Your task to perform on an android device: Open Reddit.com Image 0: 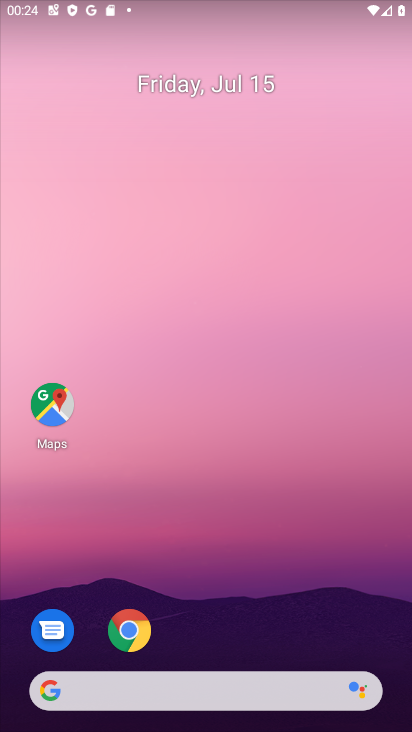
Step 0: click (211, 709)
Your task to perform on an android device: Open Reddit.com Image 1: 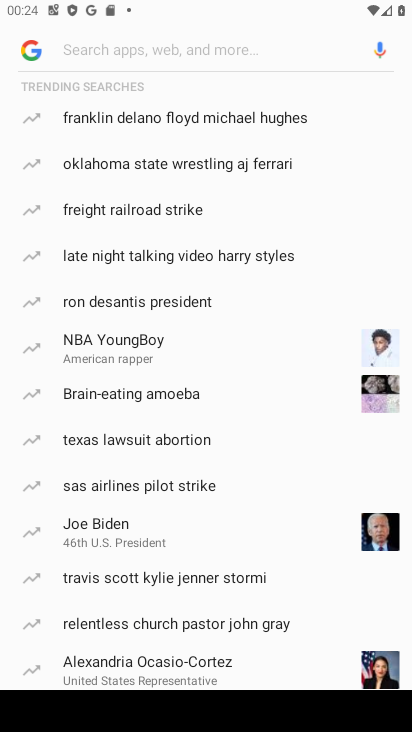
Step 1: type "reddiit.com"
Your task to perform on an android device: Open Reddit.com Image 2: 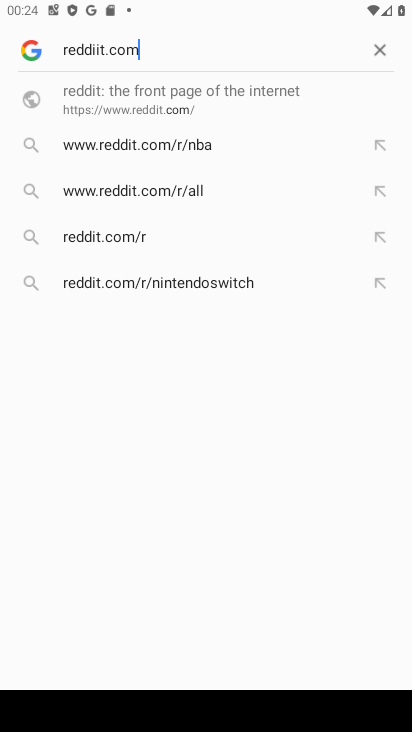
Step 2: click (196, 132)
Your task to perform on an android device: Open Reddit.com Image 3: 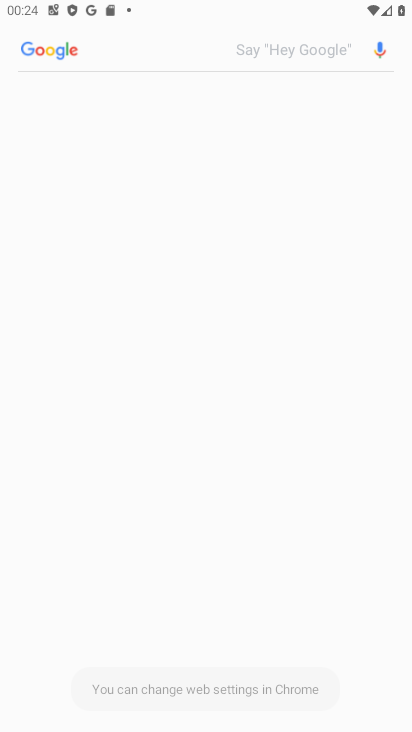
Step 3: task complete